Your task to perform on an android device: Go to Google Image 0: 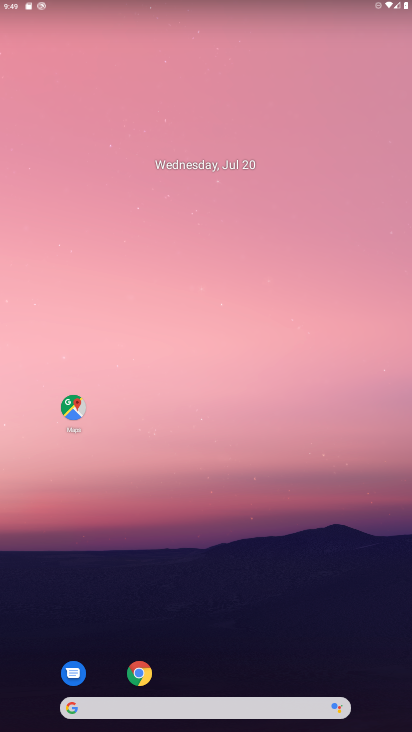
Step 0: drag from (188, 647) to (238, 9)
Your task to perform on an android device: Go to Google Image 1: 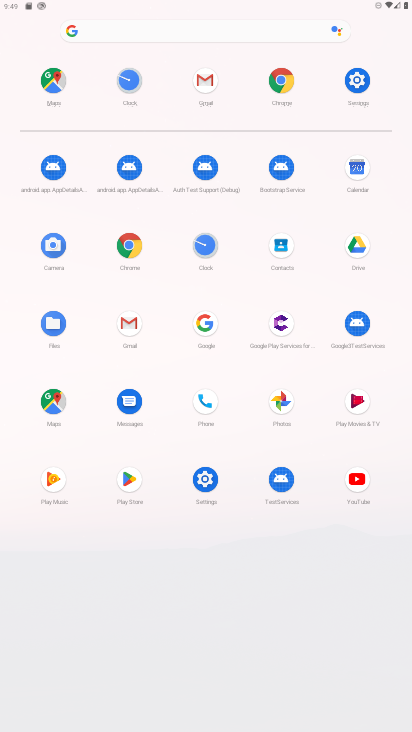
Step 1: click (203, 319)
Your task to perform on an android device: Go to Google Image 2: 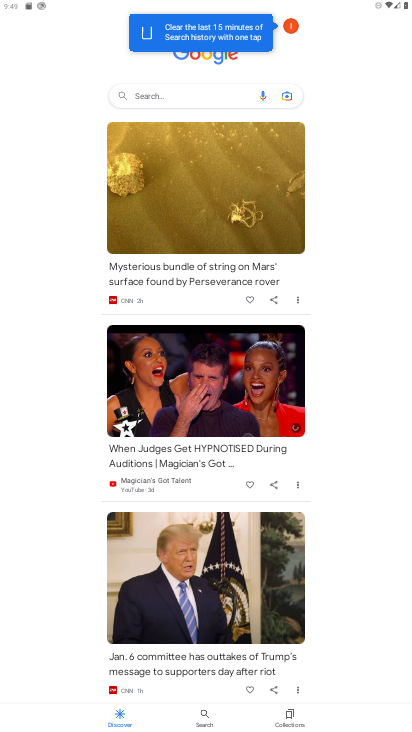
Step 2: task complete